Your task to perform on an android device: turn on priority inbox in the gmail app Image 0: 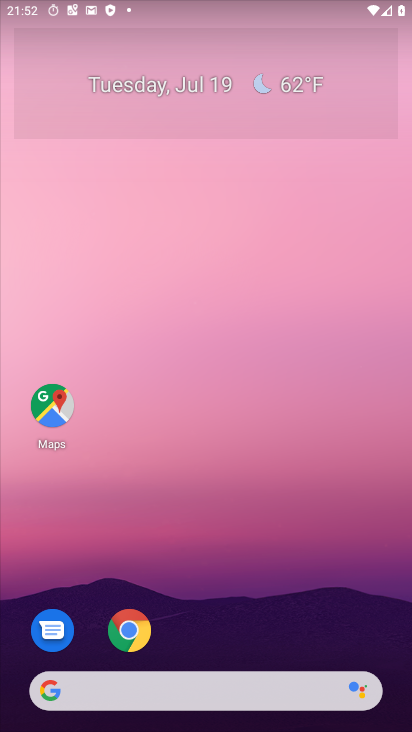
Step 0: drag from (36, 660) to (208, 206)
Your task to perform on an android device: turn on priority inbox in the gmail app Image 1: 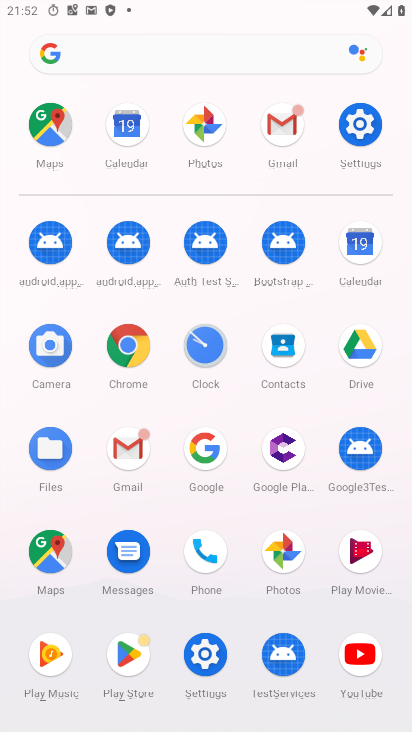
Step 1: click (129, 449)
Your task to perform on an android device: turn on priority inbox in the gmail app Image 2: 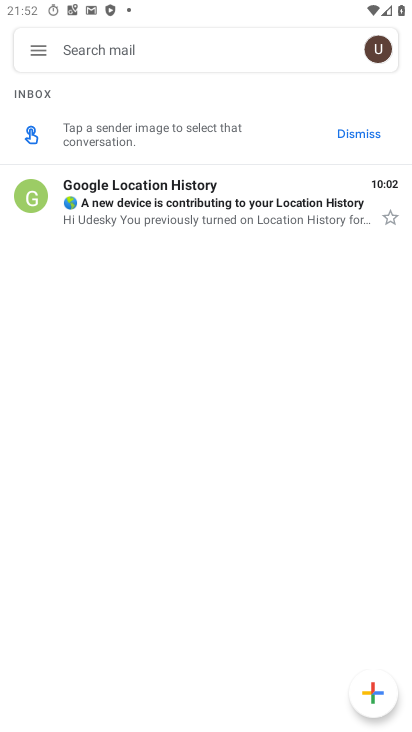
Step 2: click (32, 48)
Your task to perform on an android device: turn on priority inbox in the gmail app Image 3: 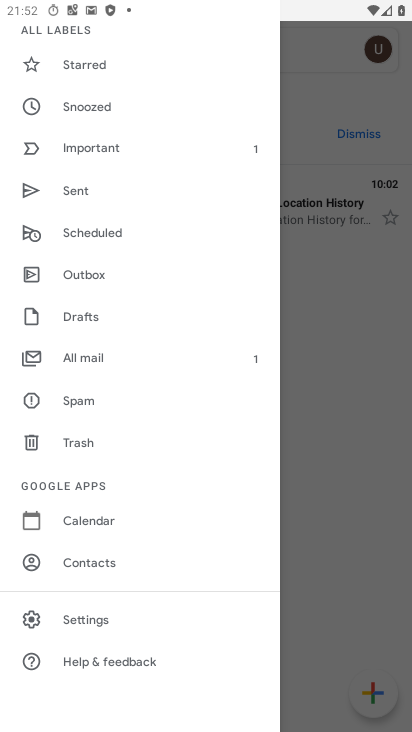
Step 3: click (99, 604)
Your task to perform on an android device: turn on priority inbox in the gmail app Image 4: 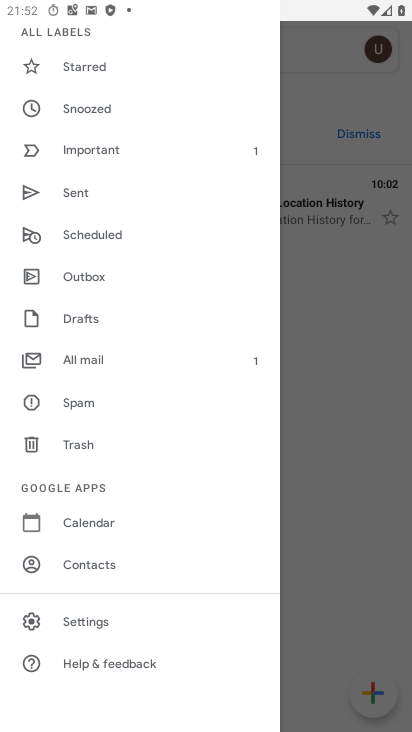
Step 4: click (73, 622)
Your task to perform on an android device: turn on priority inbox in the gmail app Image 5: 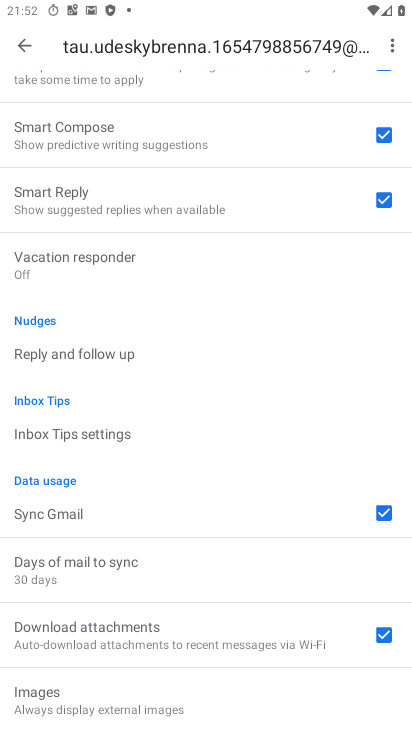
Step 5: drag from (134, 127) to (130, 406)
Your task to perform on an android device: turn on priority inbox in the gmail app Image 6: 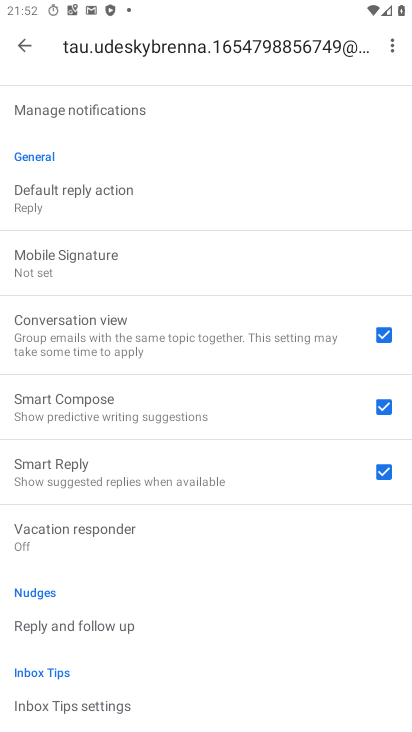
Step 6: drag from (120, 129) to (121, 441)
Your task to perform on an android device: turn on priority inbox in the gmail app Image 7: 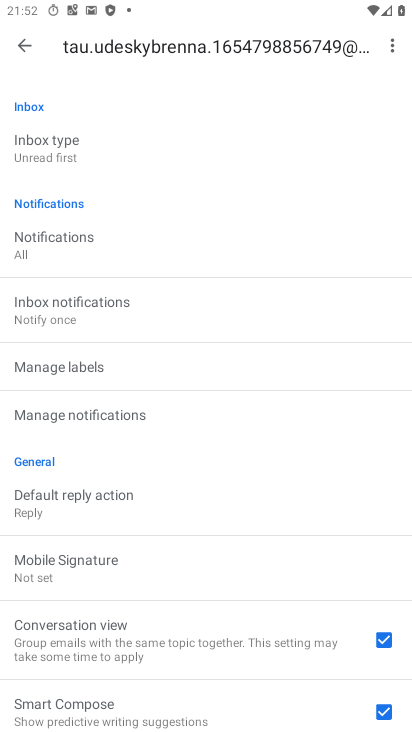
Step 7: click (51, 143)
Your task to perform on an android device: turn on priority inbox in the gmail app Image 8: 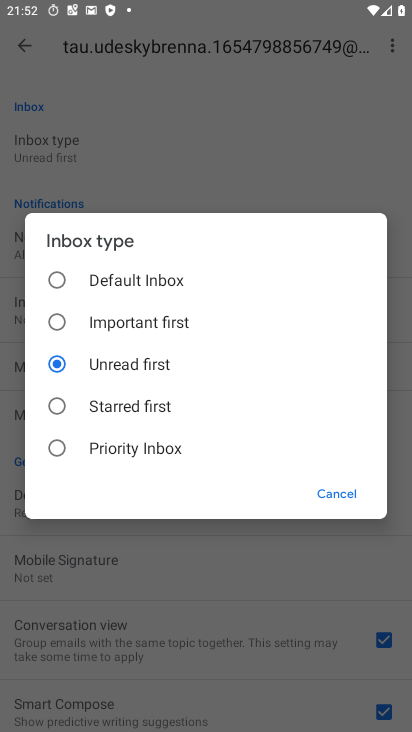
Step 8: click (68, 456)
Your task to perform on an android device: turn on priority inbox in the gmail app Image 9: 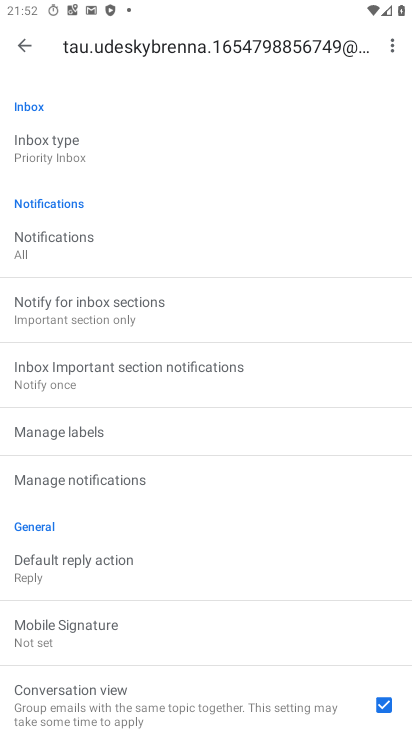
Step 9: task complete